Your task to perform on an android device: change the clock display to show seconds Image 0: 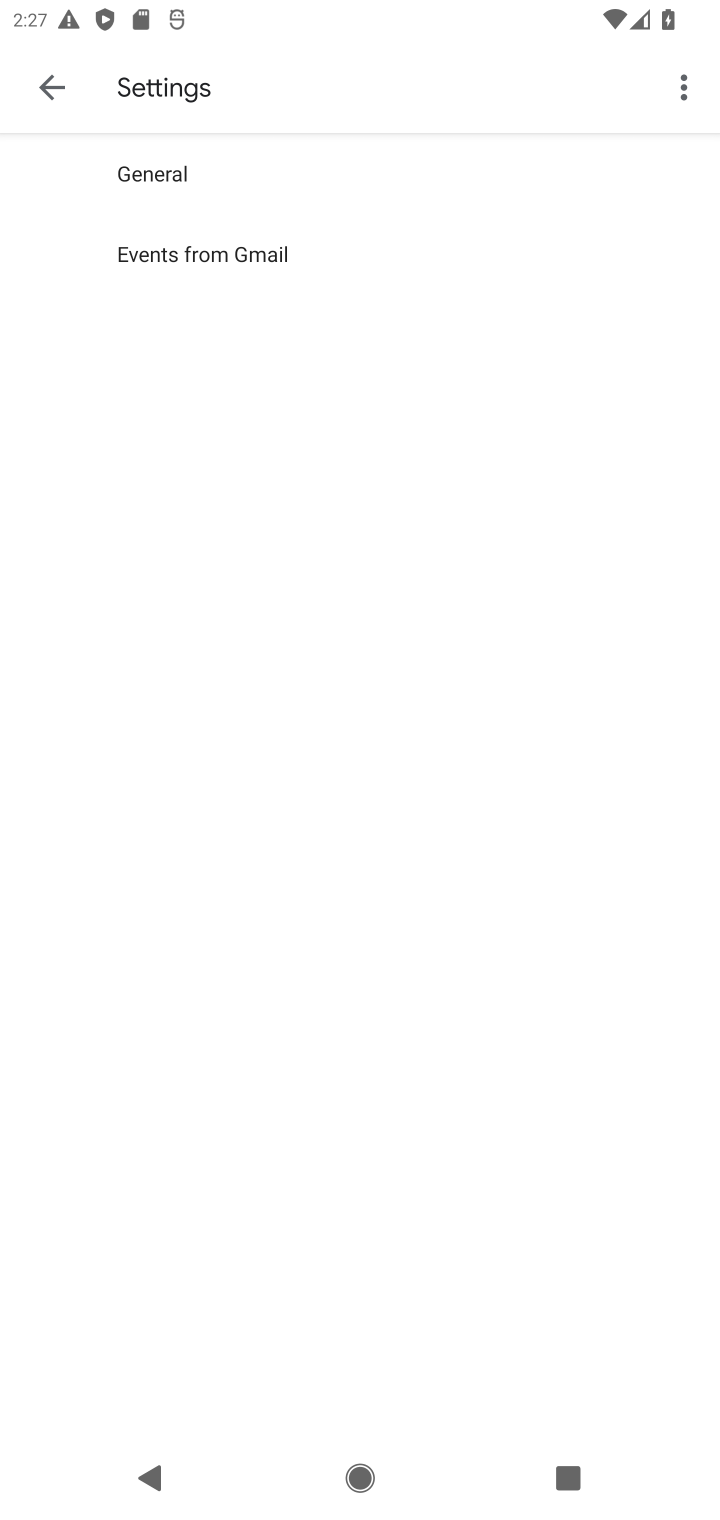
Step 0: press home button
Your task to perform on an android device: change the clock display to show seconds Image 1: 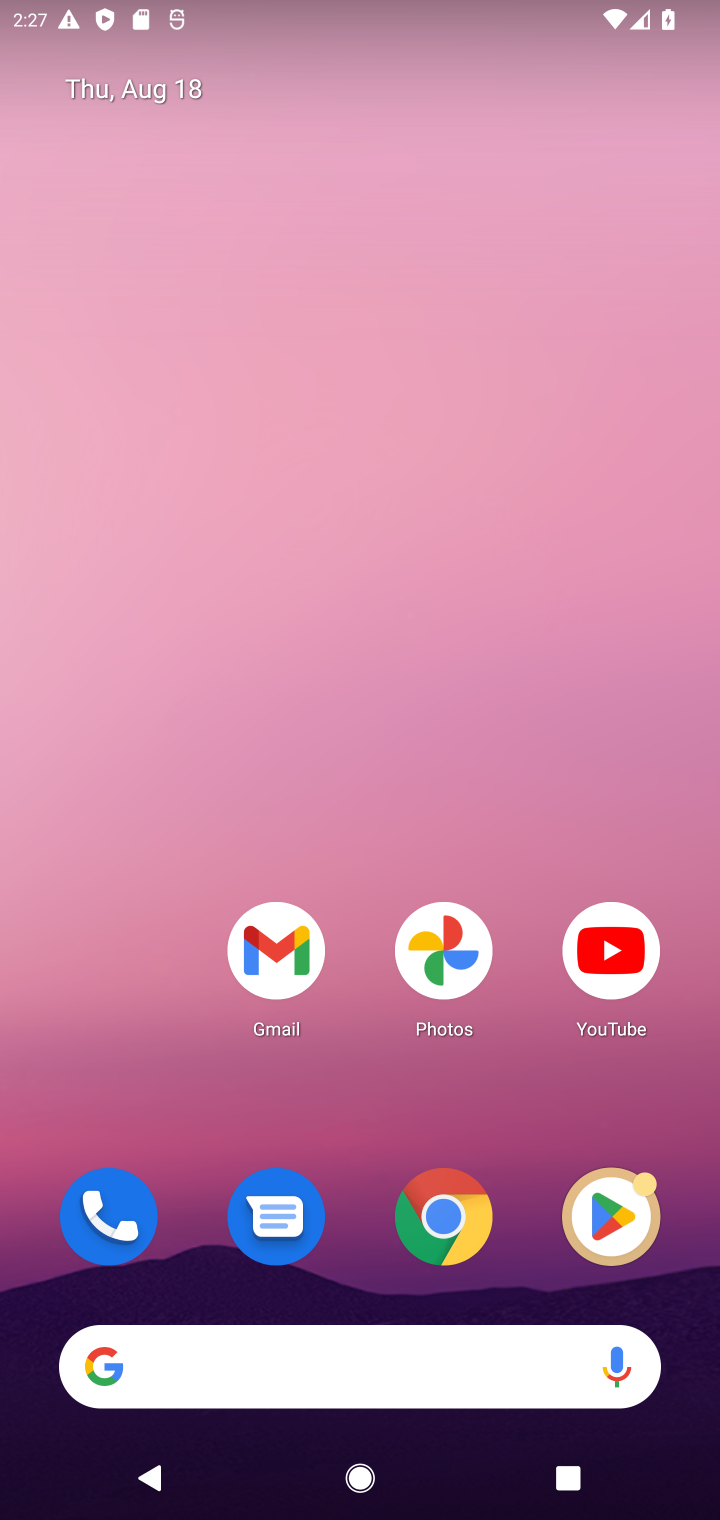
Step 1: drag from (176, 988) to (378, 98)
Your task to perform on an android device: change the clock display to show seconds Image 2: 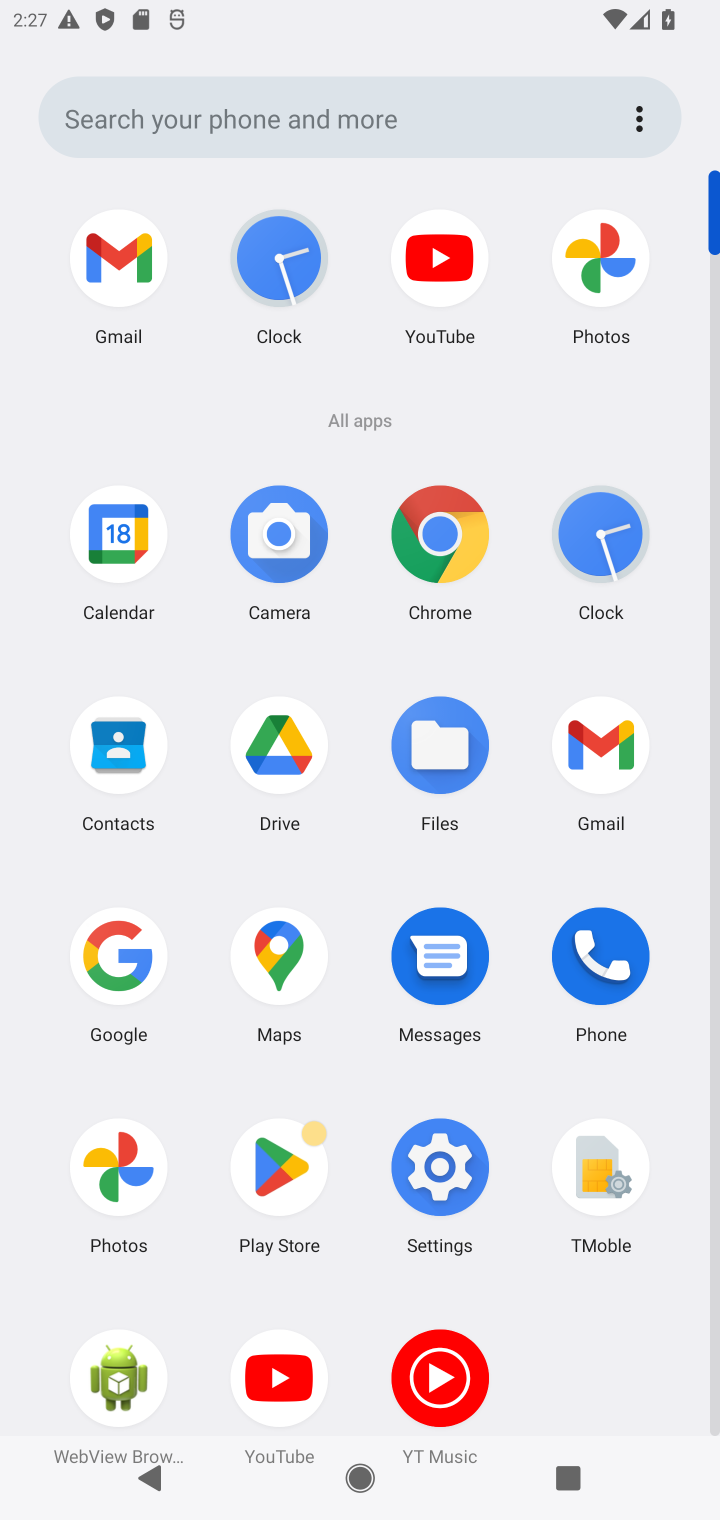
Step 2: click (284, 241)
Your task to perform on an android device: change the clock display to show seconds Image 3: 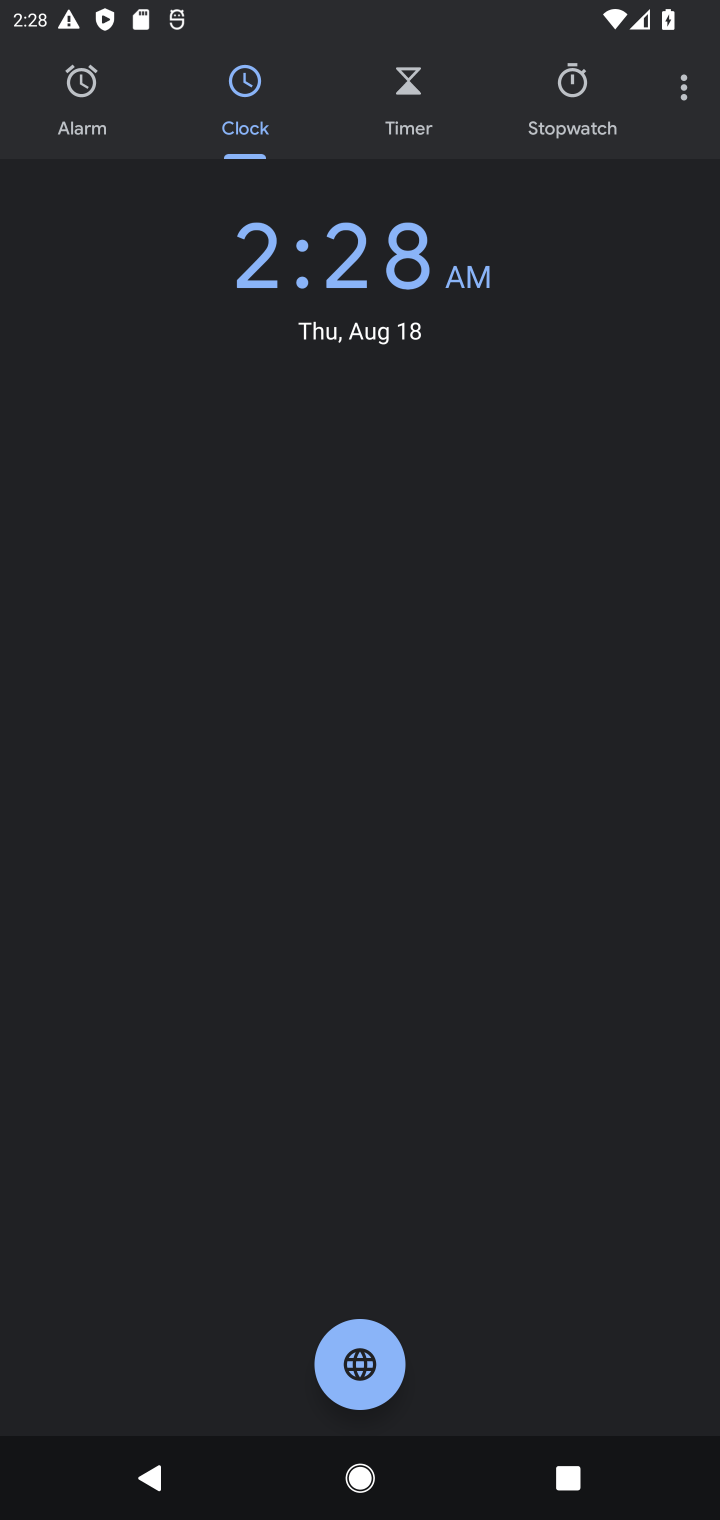
Step 3: click (684, 92)
Your task to perform on an android device: change the clock display to show seconds Image 4: 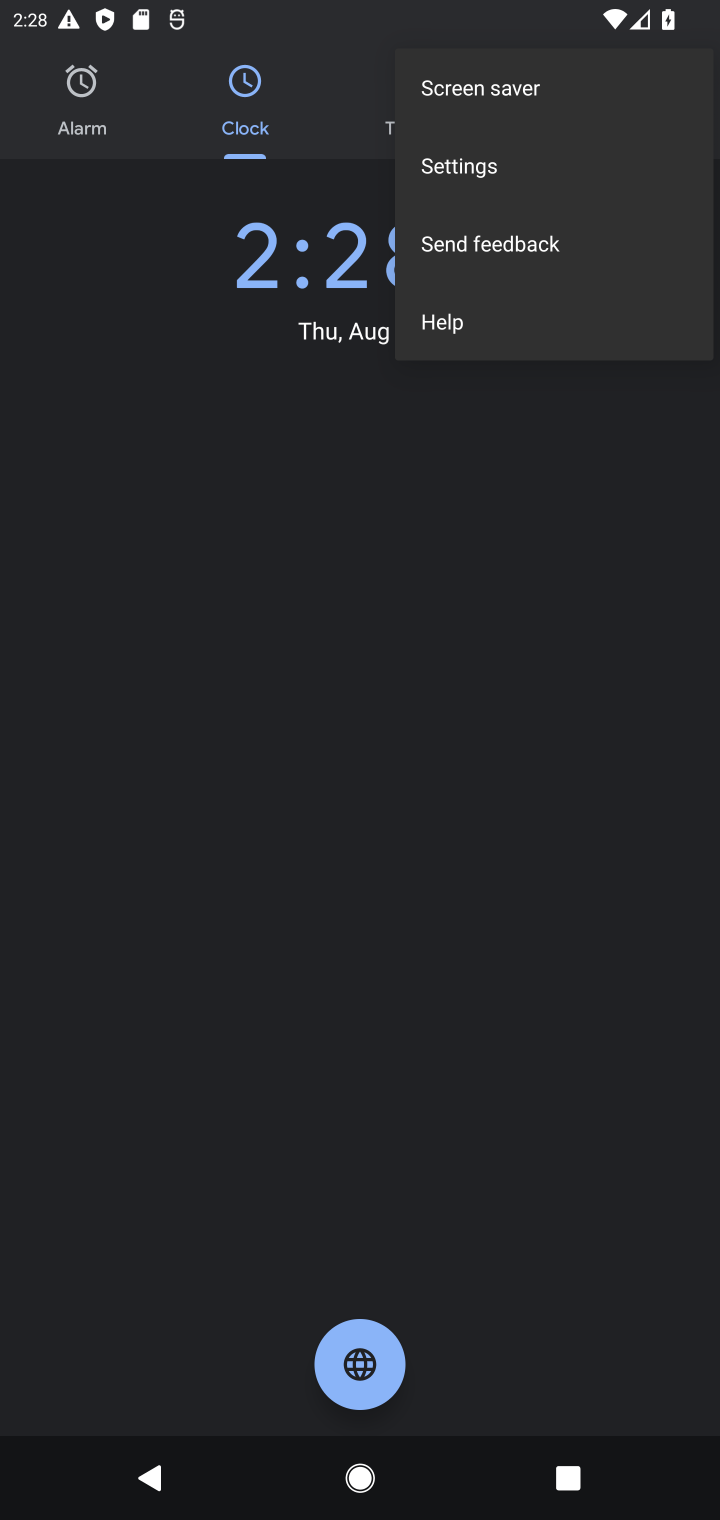
Step 4: click (598, 170)
Your task to perform on an android device: change the clock display to show seconds Image 5: 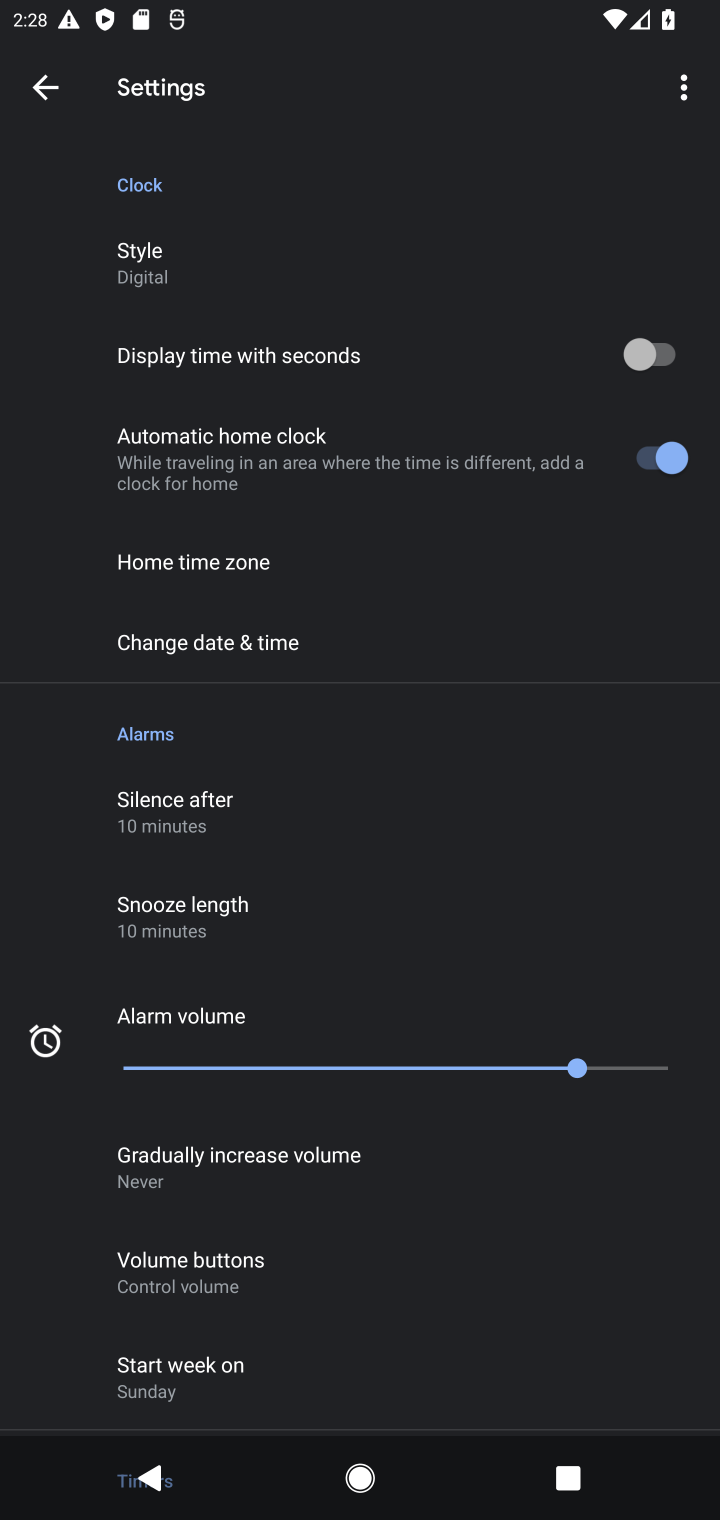
Step 5: click (647, 345)
Your task to perform on an android device: change the clock display to show seconds Image 6: 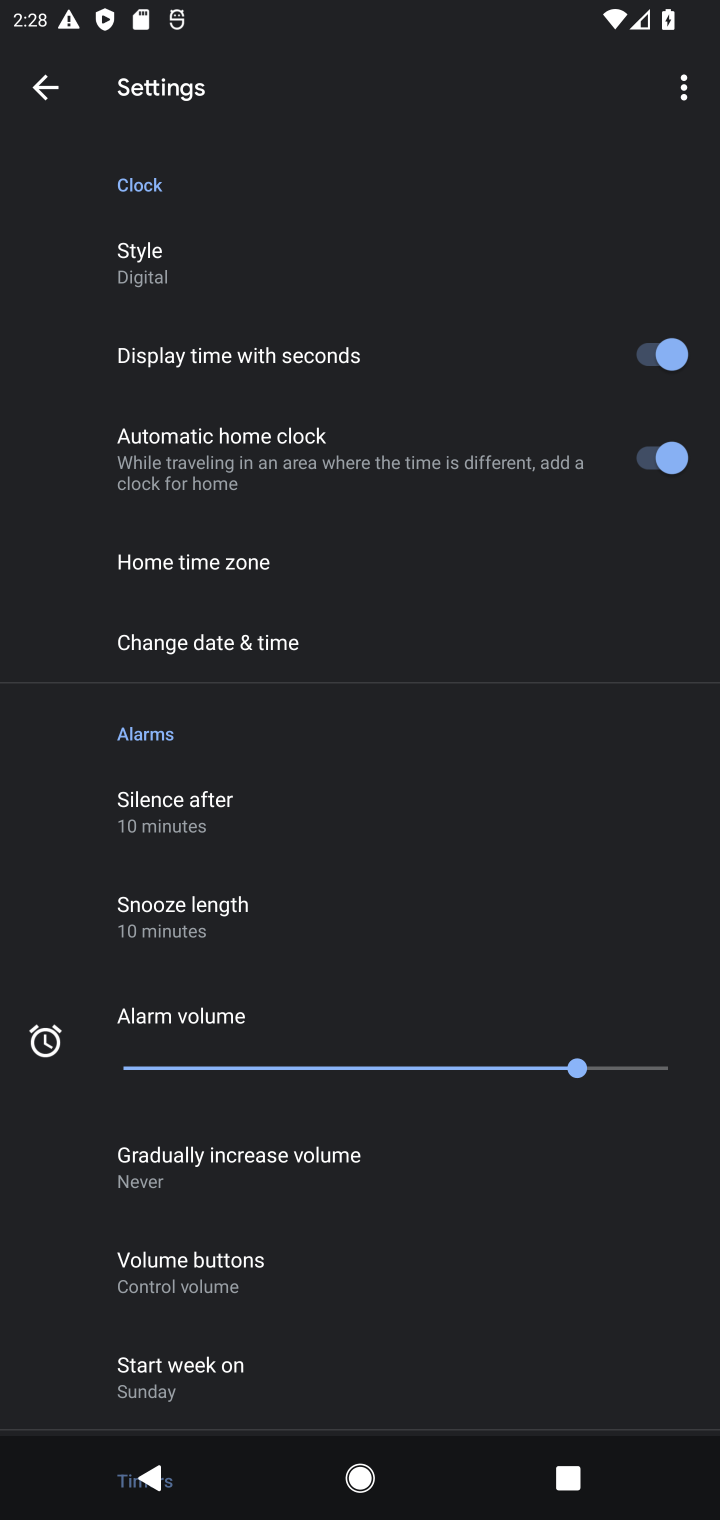
Step 6: task complete